Your task to perform on an android device: turn off picture-in-picture Image 0: 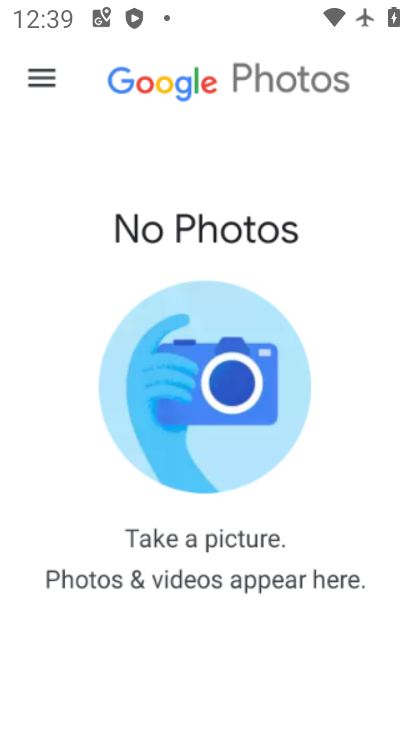
Step 0: drag from (279, 681) to (212, 66)
Your task to perform on an android device: turn off picture-in-picture Image 1: 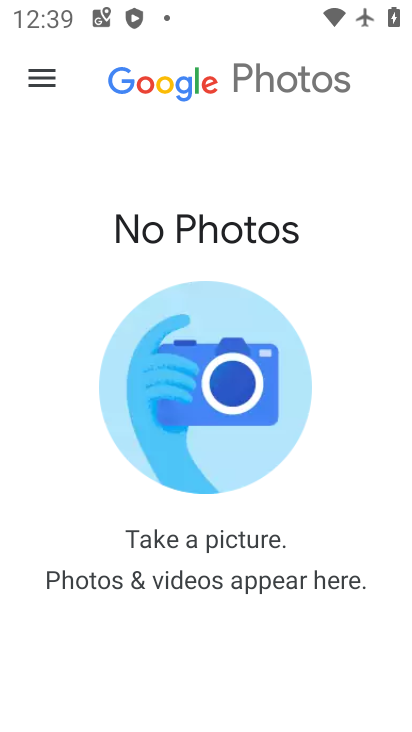
Step 1: drag from (269, 645) to (227, 244)
Your task to perform on an android device: turn off picture-in-picture Image 2: 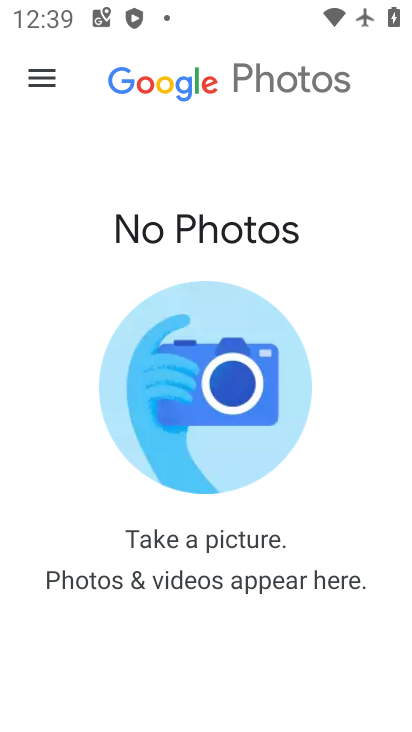
Step 2: press home button
Your task to perform on an android device: turn off picture-in-picture Image 3: 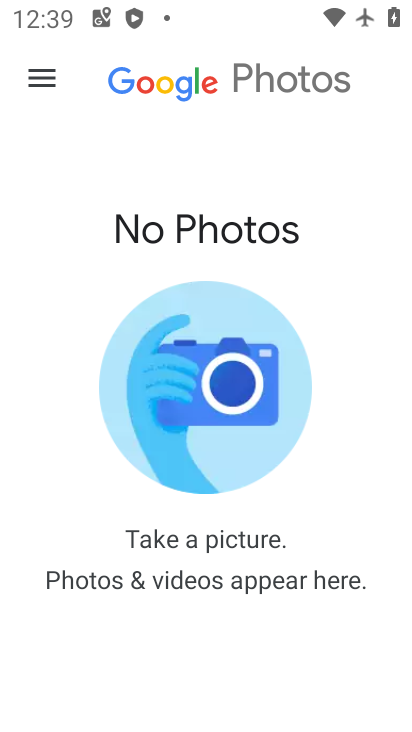
Step 3: press home button
Your task to perform on an android device: turn off picture-in-picture Image 4: 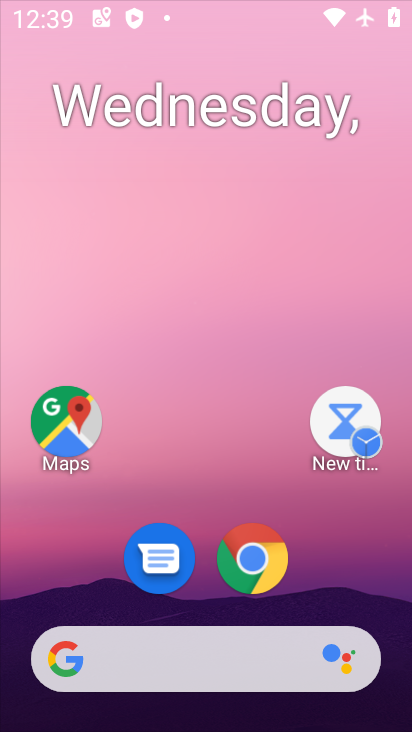
Step 4: press home button
Your task to perform on an android device: turn off picture-in-picture Image 5: 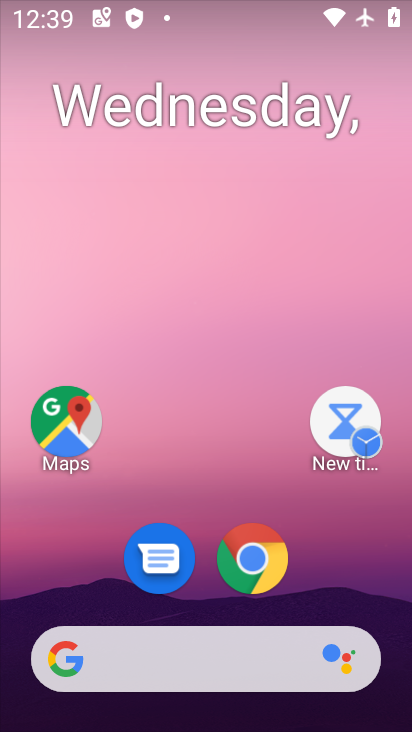
Step 5: drag from (252, 630) to (195, 23)
Your task to perform on an android device: turn off picture-in-picture Image 6: 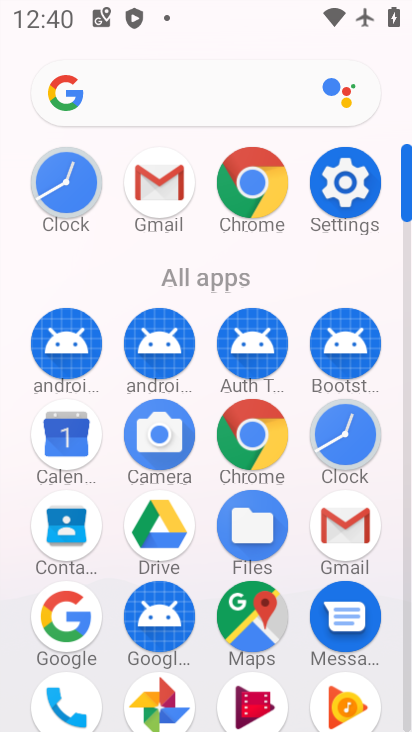
Step 6: click (248, 185)
Your task to perform on an android device: turn off picture-in-picture Image 7: 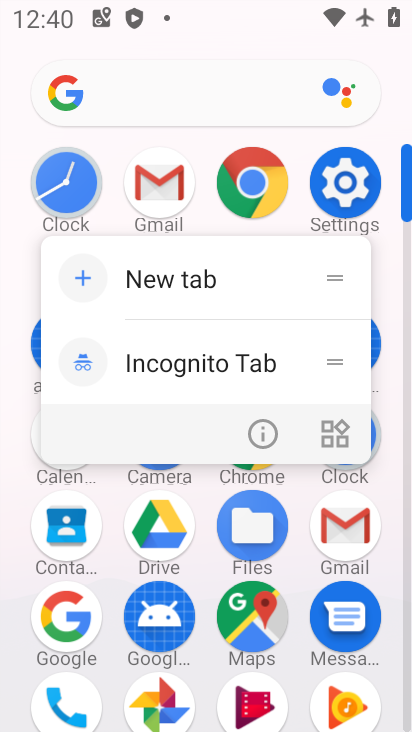
Step 7: click (261, 431)
Your task to perform on an android device: turn off picture-in-picture Image 8: 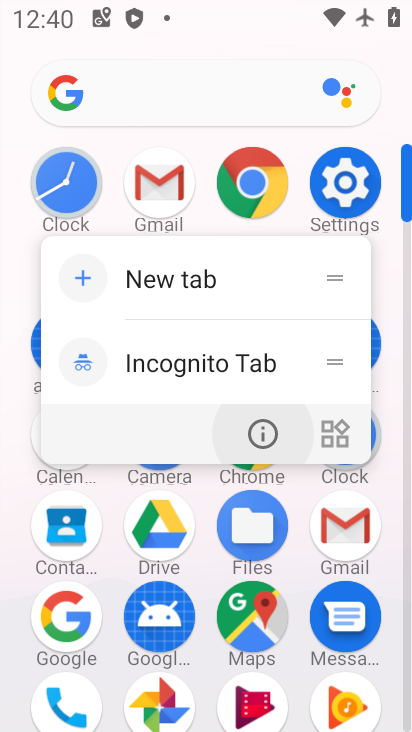
Step 8: click (263, 432)
Your task to perform on an android device: turn off picture-in-picture Image 9: 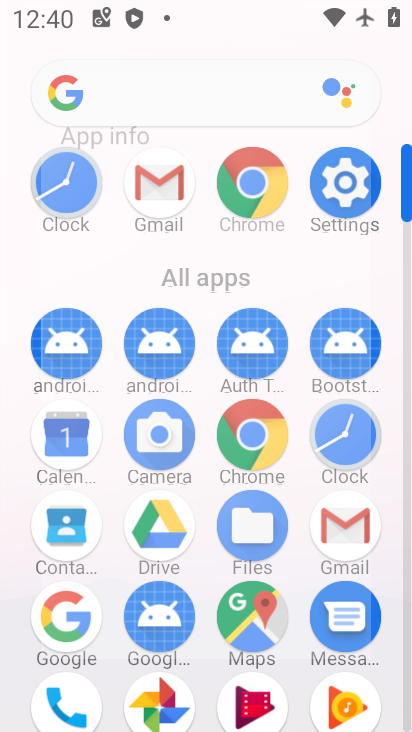
Step 9: click (263, 432)
Your task to perform on an android device: turn off picture-in-picture Image 10: 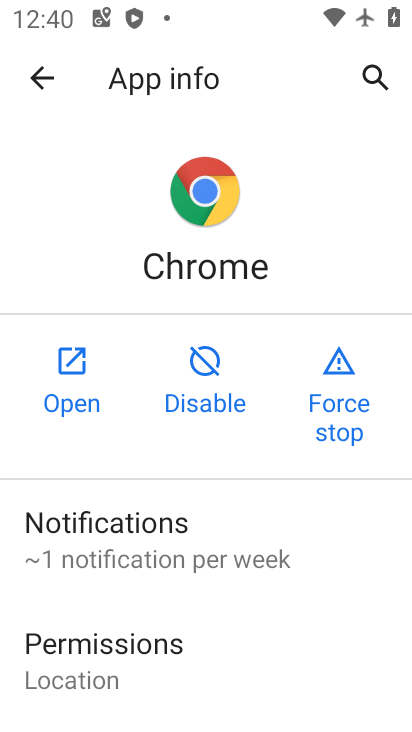
Step 10: drag from (111, 603) to (56, 137)
Your task to perform on an android device: turn off picture-in-picture Image 11: 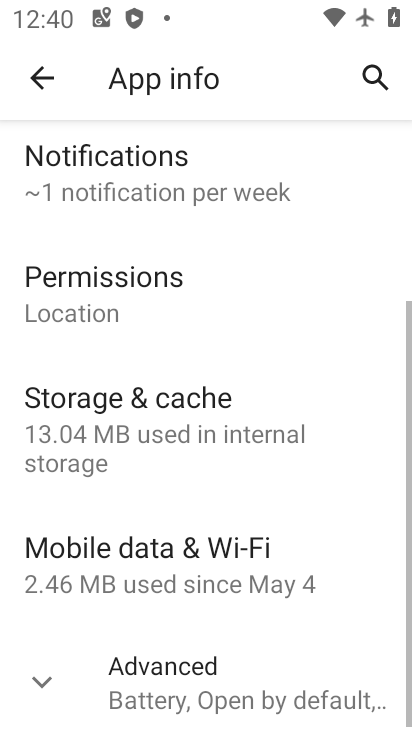
Step 11: drag from (141, 476) to (131, 155)
Your task to perform on an android device: turn off picture-in-picture Image 12: 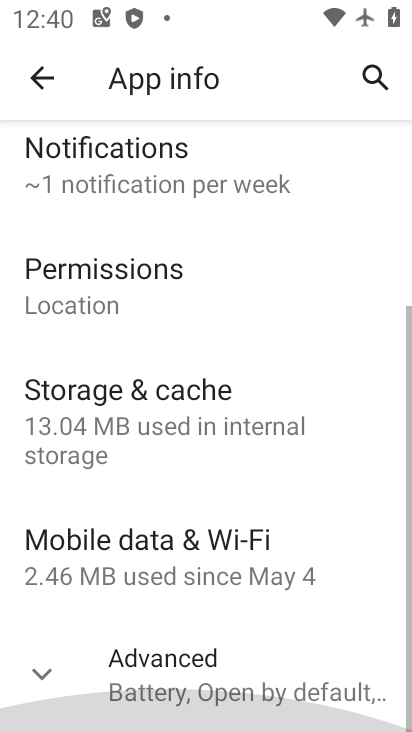
Step 12: drag from (200, 589) to (197, 120)
Your task to perform on an android device: turn off picture-in-picture Image 13: 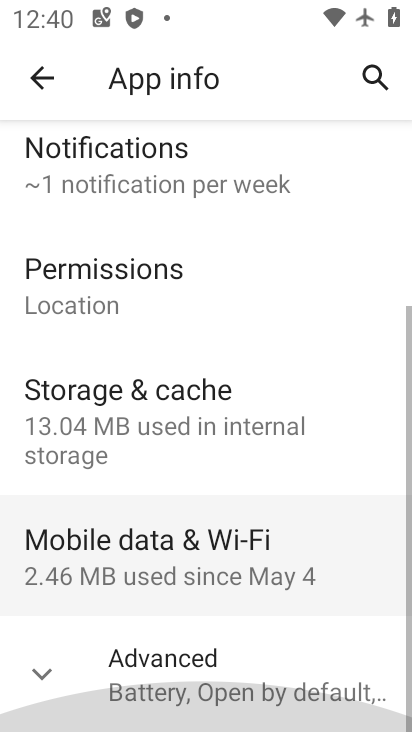
Step 13: drag from (212, 598) to (223, 182)
Your task to perform on an android device: turn off picture-in-picture Image 14: 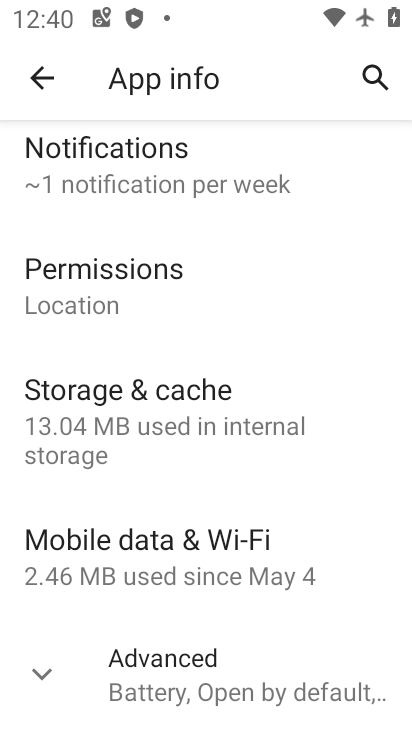
Step 14: click (159, 682)
Your task to perform on an android device: turn off picture-in-picture Image 15: 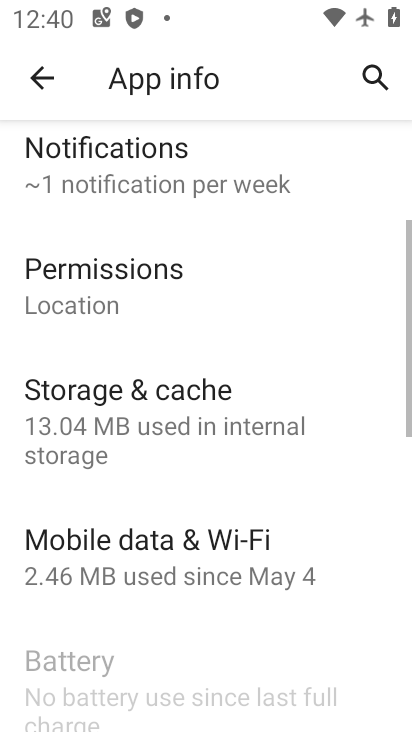
Step 15: click (159, 682)
Your task to perform on an android device: turn off picture-in-picture Image 16: 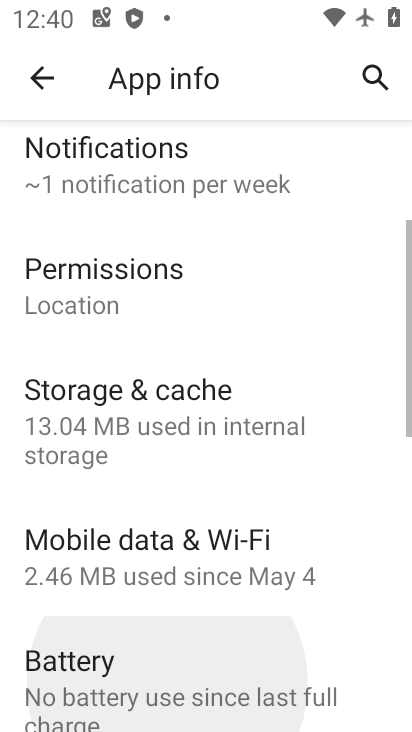
Step 16: click (161, 682)
Your task to perform on an android device: turn off picture-in-picture Image 17: 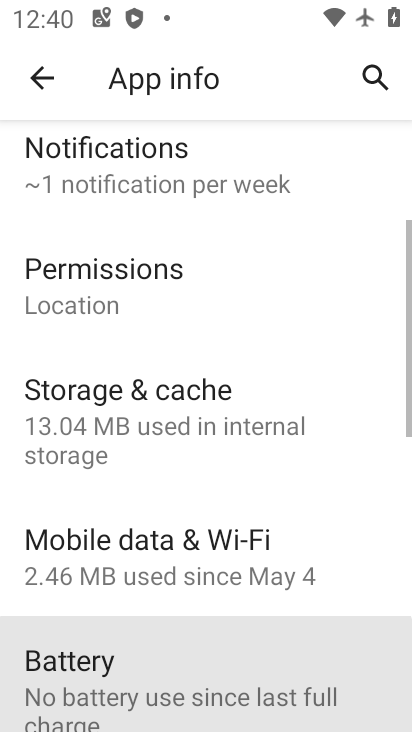
Step 17: click (168, 687)
Your task to perform on an android device: turn off picture-in-picture Image 18: 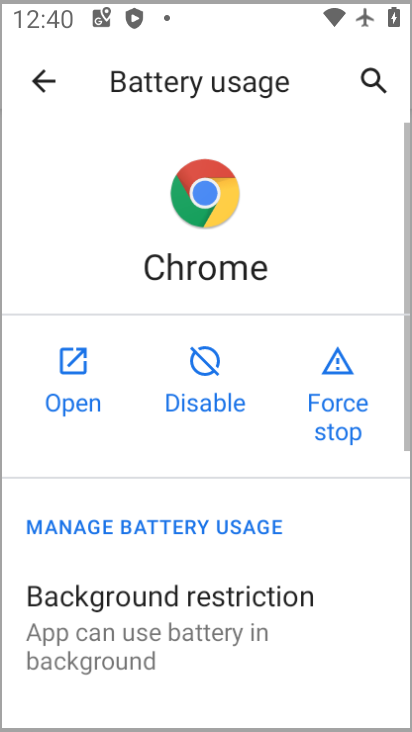
Step 18: drag from (176, 414) to (167, 178)
Your task to perform on an android device: turn off picture-in-picture Image 19: 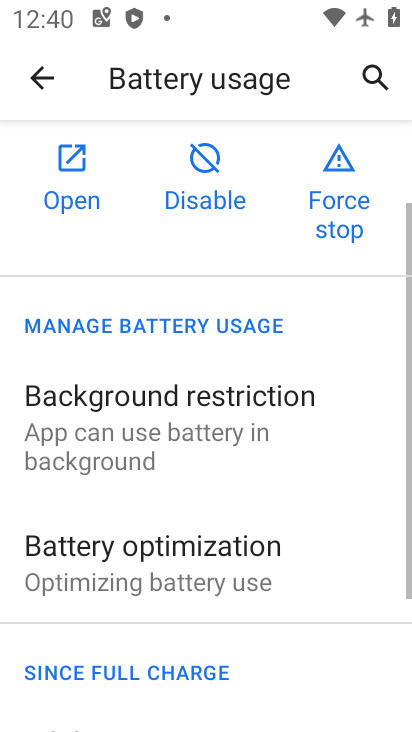
Step 19: drag from (257, 491) to (230, 175)
Your task to perform on an android device: turn off picture-in-picture Image 20: 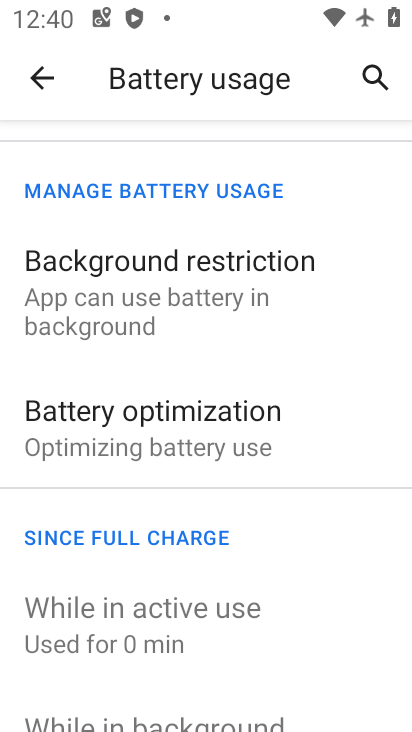
Step 20: click (38, 73)
Your task to perform on an android device: turn off picture-in-picture Image 21: 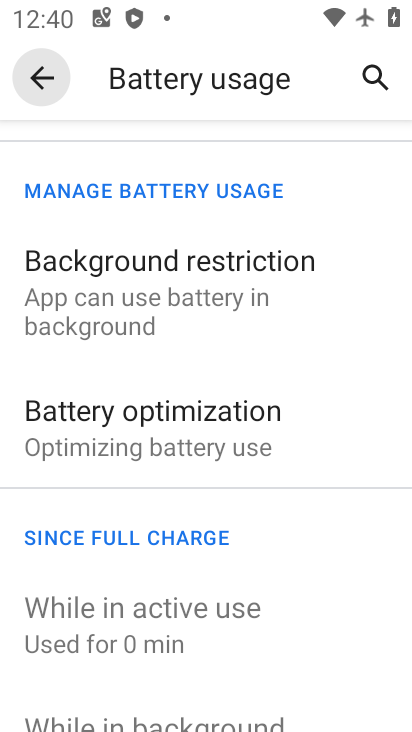
Step 21: click (37, 73)
Your task to perform on an android device: turn off picture-in-picture Image 22: 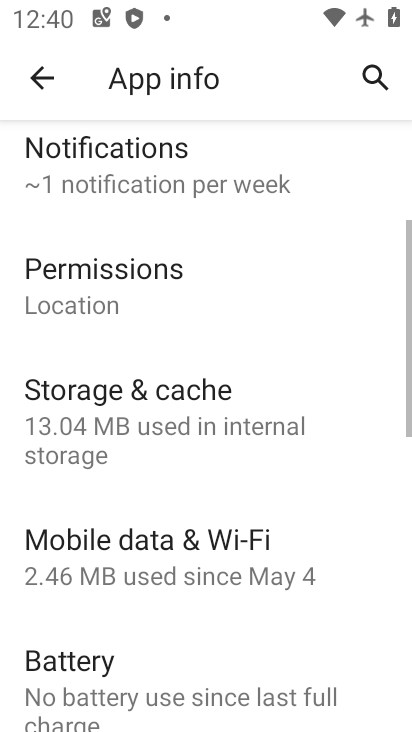
Step 22: drag from (169, 523) to (175, 192)
Your task to perform on an android device: turn off picture-in-picture Image 23: 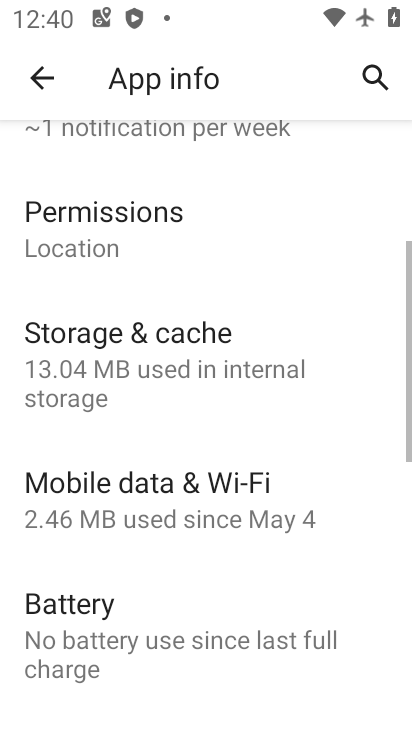
Step 23: drag from (205, 543) to (153, 117)
Your task to perform on an android device: turn off picture-in-picture Image 24: 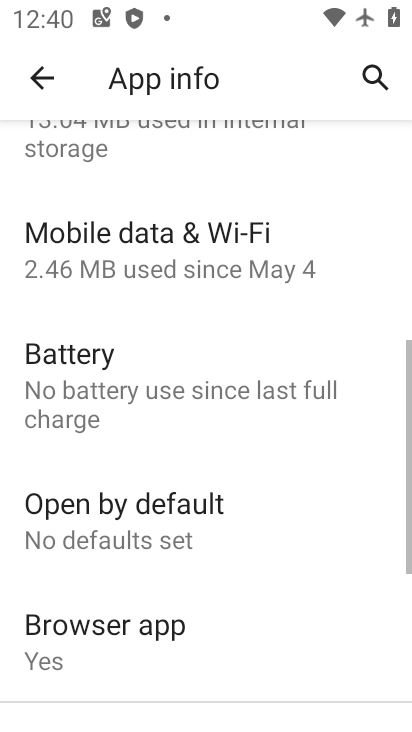
Step 24: drag from (196, 468) to (125, 187)
Your task to perform on an android device: turn off picture-in-picture Image 25: 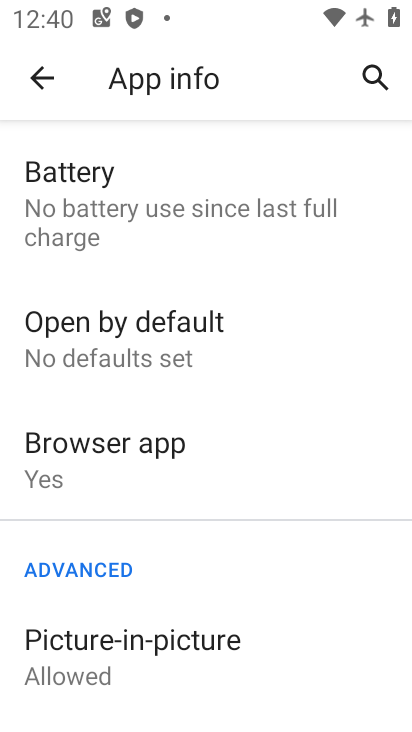
Step 25: drag from (144, 564) to (140, 242)
Your task to perform on an android device: turn off picture-in-picture Image 26: 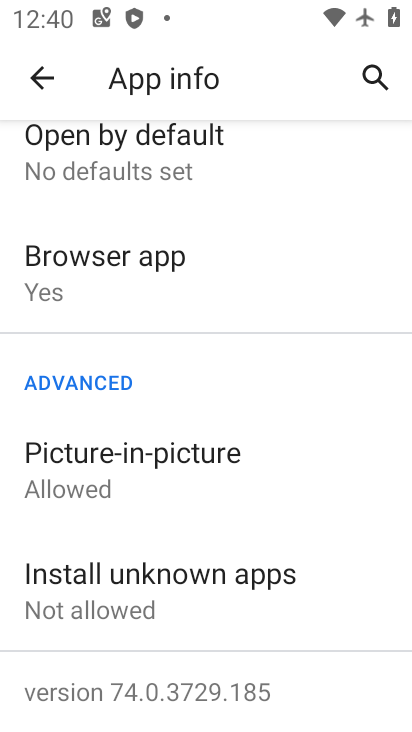
Step 26: click (71, 470)
Your task to perform on an android device: turn off picture-in-picture Image 27: 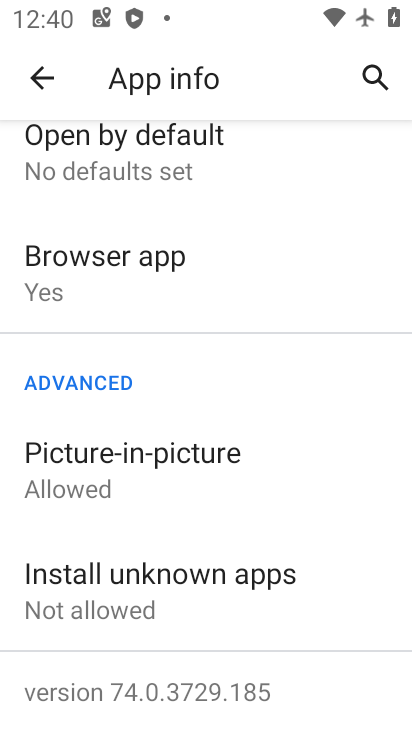
Step 27: click (71, 470)
Your task to perform on an android device: turn off picture-in-picture Image 28: 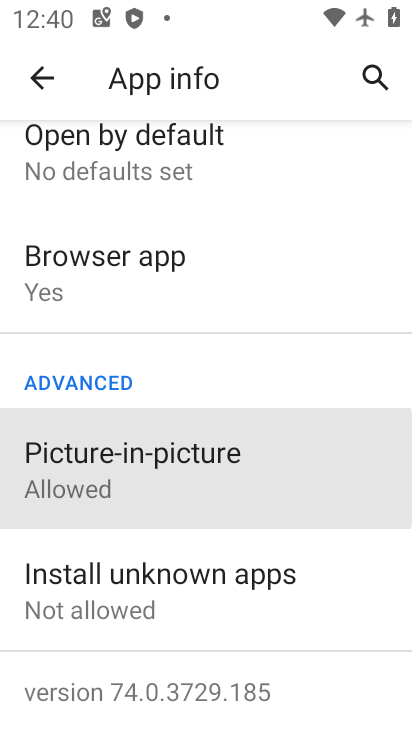
Step 28: click (71, 473)
Your task to perform on an android device: turn off picture-in-picture Image 29: 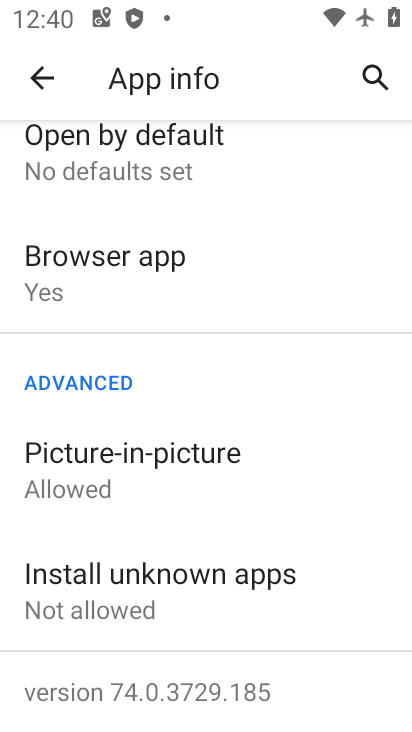
Step 29: click (71, 473)
Your task to perform on an android device: turn off picture-in-picture Image 30: 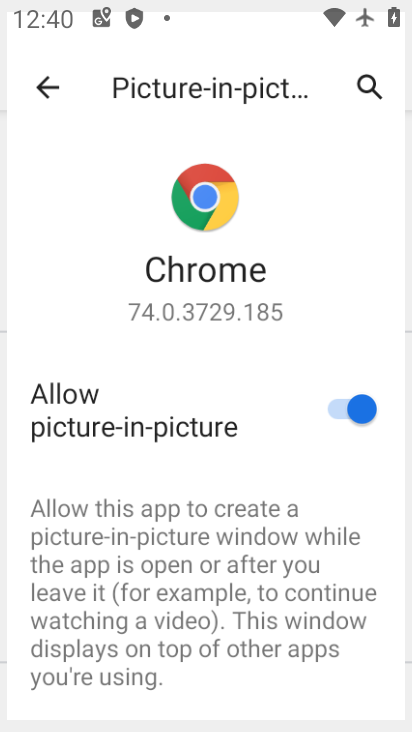
Step 30: click (69, 491)
Your task to perform on an android device: turn off picture-in-picture Image 31: 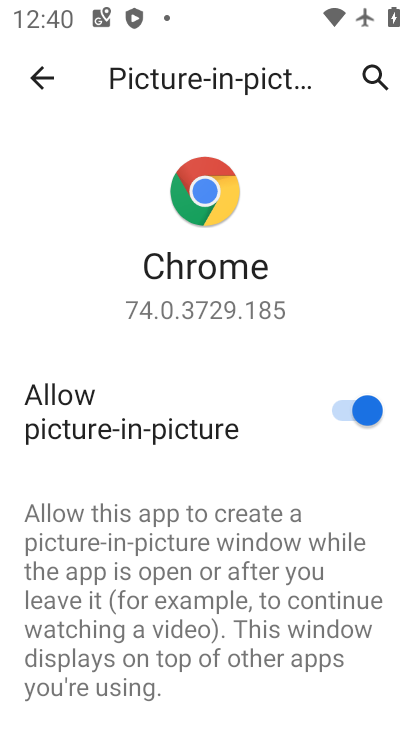
Step 31: click (366, 407)
Your task to perform on an android device: turn off picture-in-picture Image 32: 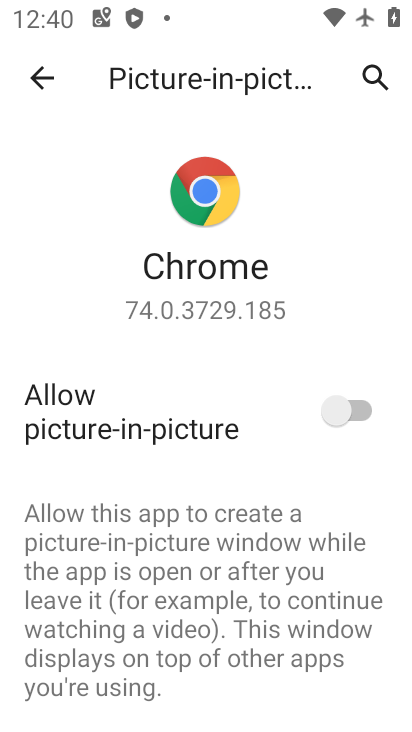
Step 32: task complete